Your task to perform on an android device: Open Amazon Image 0: 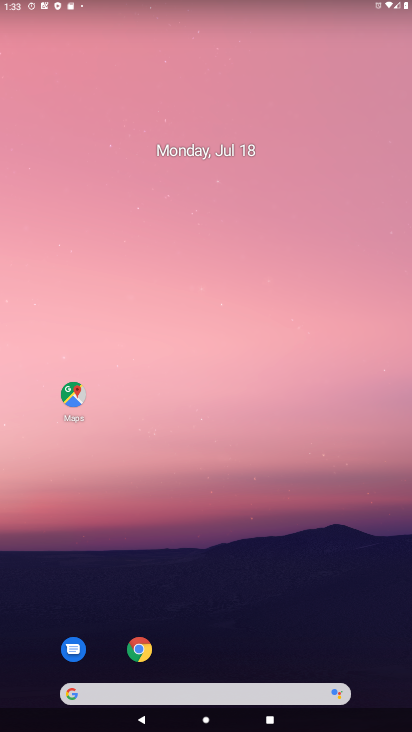
Step 0: drag from (208, 666) to (165, 85)
Your task to perform on an android device: Open Amazon Image 1: 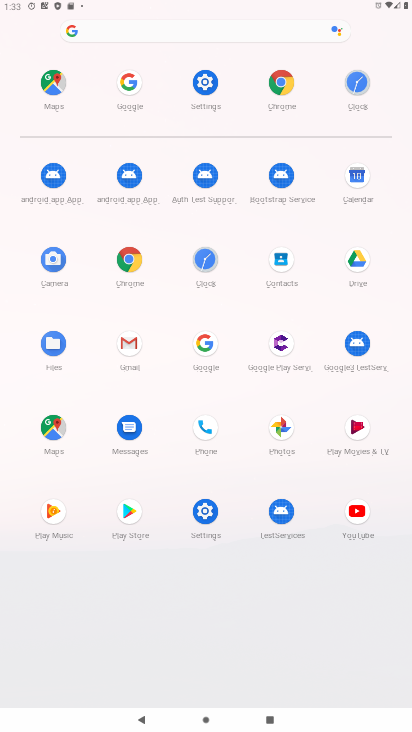
Step 1: click (136, 266)
Your task to perform on an android device: Open Amazon Image 2: 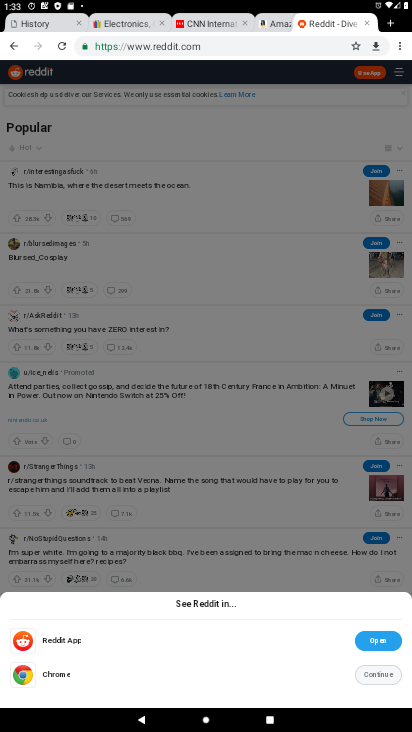
Step 2: click (391, 22)
Your task to perform on an android device: Open Amazon Image 3: 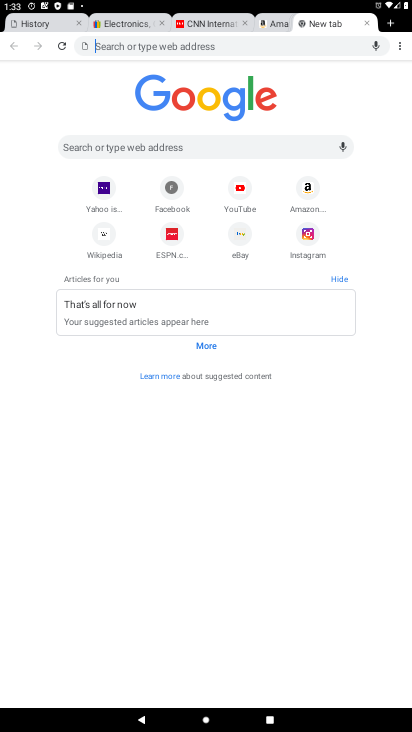
Step 3: click (307, 193)
Your task to perform on an android device: Open Amazon Image 4: 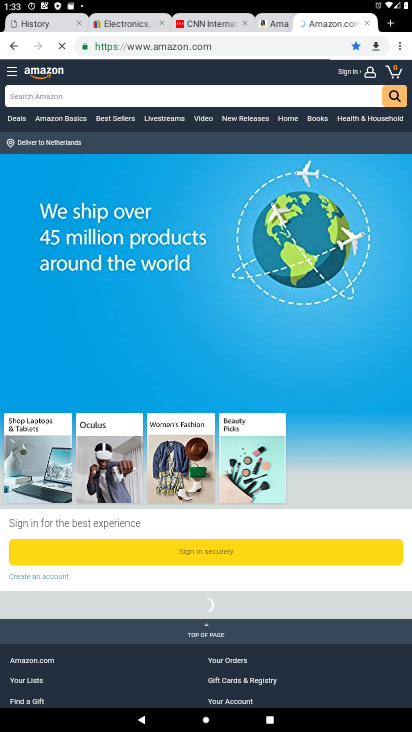
Step 4: task complete